Your task to perform on an android device: open wifi settings Image 0: 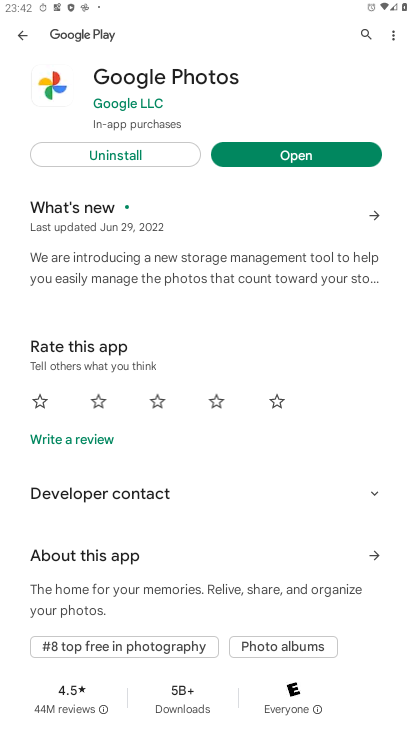
Step 0: press home button
Your task to perform on an android device: open wifi settings Image 1: 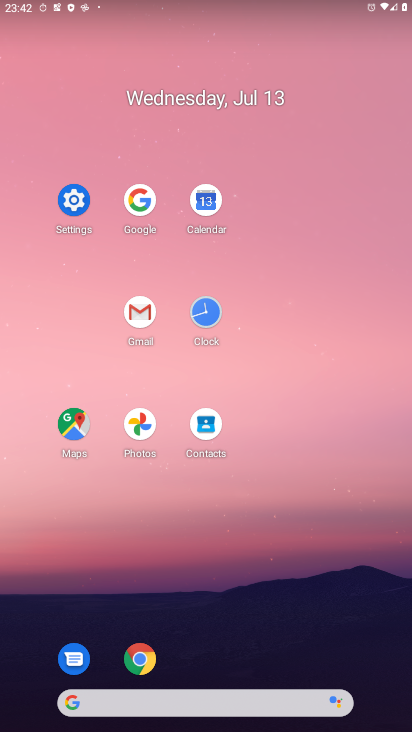
Step 1: click (71, 196)
Your task to perform on an android device: open wifi settings Image 2: 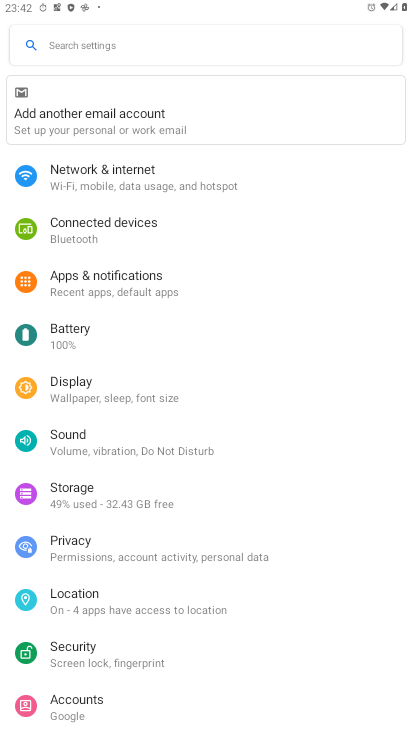
Step 2: click (245, 185)
Your task to perform on an android device: open wifi settings Image 3: 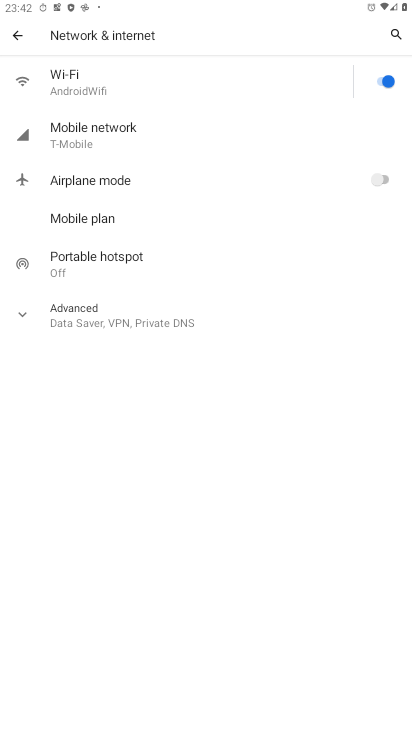
Step 3: click (191, 100)
Your task to perform on an android device: open wifi settings Image 4: 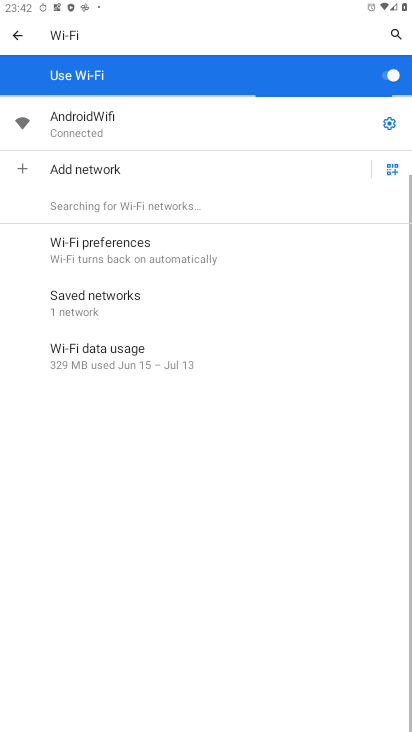
Step 4: click (380, 123)
Your task to perform on an android device: open wifi settings Image 5: 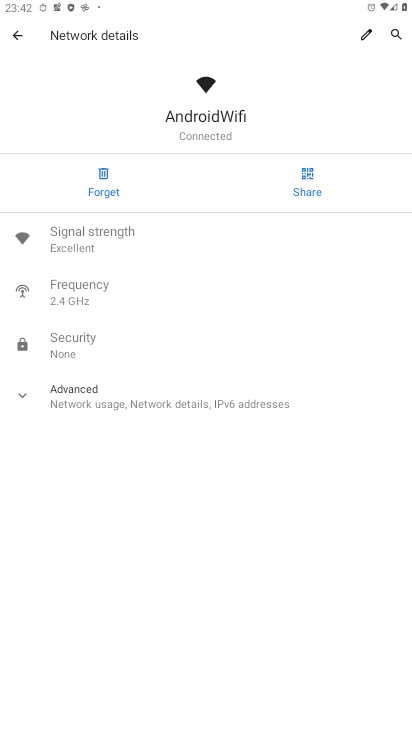
Step 5: task complete